Your task to perform on an android device: check battery use Image 0: 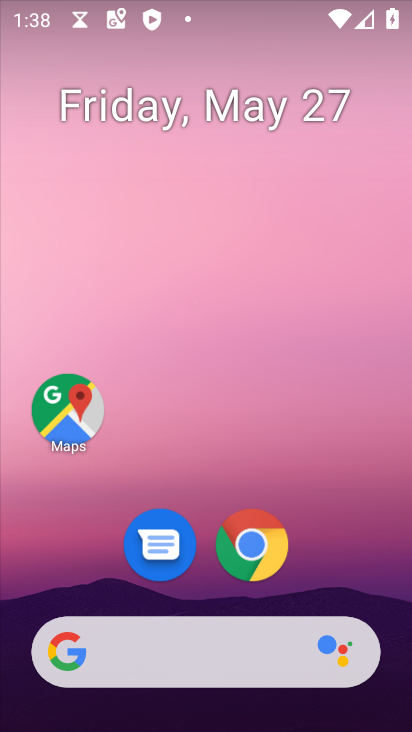
Step 0: drag from (314, 312) to (263, 6)
Your task to perform on an android device: check battery use Image 1: 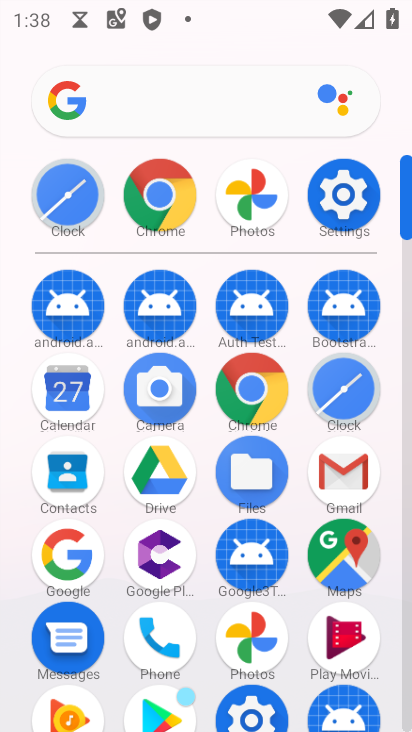
Step 1: click (338, 217)
Your task to perform on an android device: check battery use Image 2: 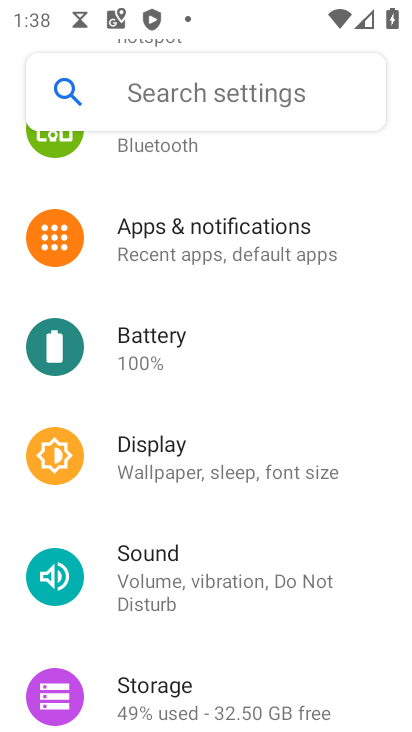
Step 2: click (237, 366)
Your task to perform on an android device: check battery use Image 3: 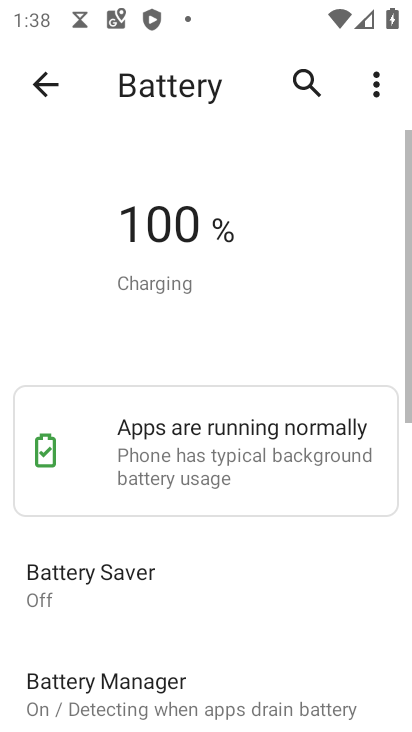
Step 3: drag from (242, 616) to (241, 241)
Your task to perform on an android device: check battery use Image 4: 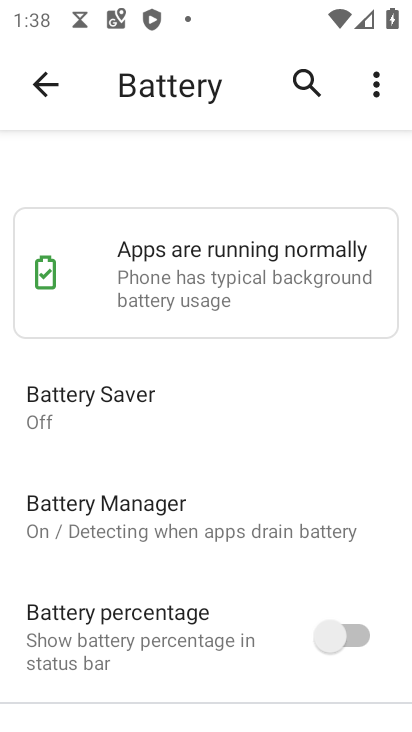
Step 4: click (355, 92)
Your task to perform on an android device: check battery use Image 5: 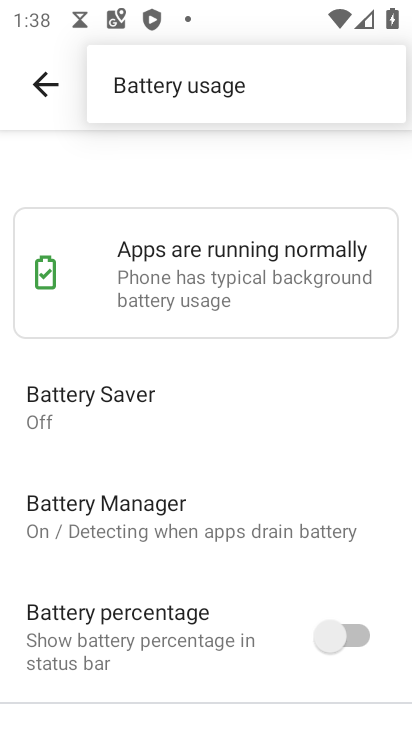
Step 5: click (259, 79)
Your task to perform on an android device: check battery use Image 6: 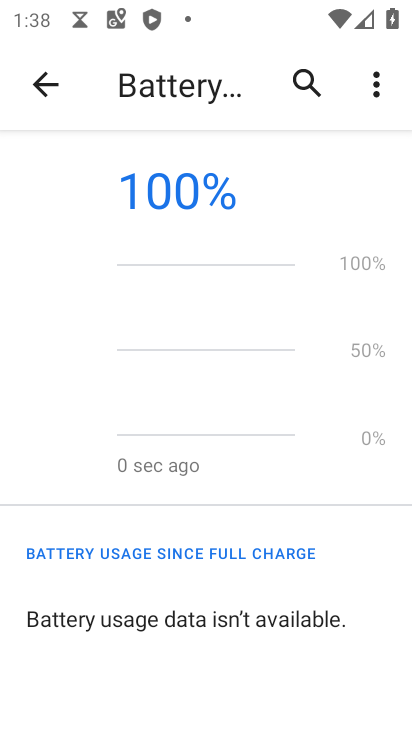
Step 6: task complete